Your task to perform on an android device: turn off picture-in-picture Image 0: 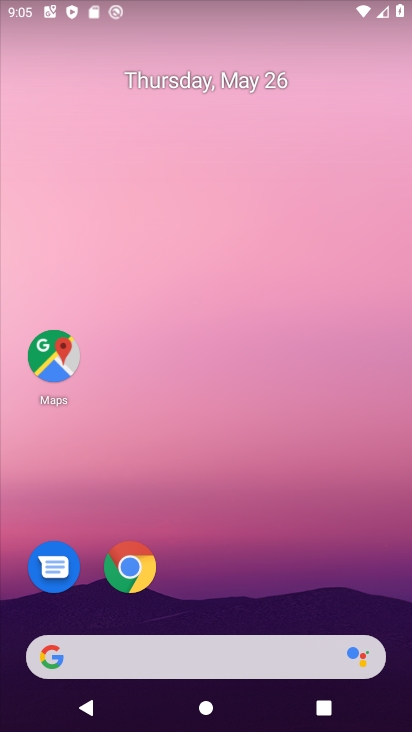
Step 0: press home button
Your task to perform on an android device: turn off picture-in-picture Image 1: 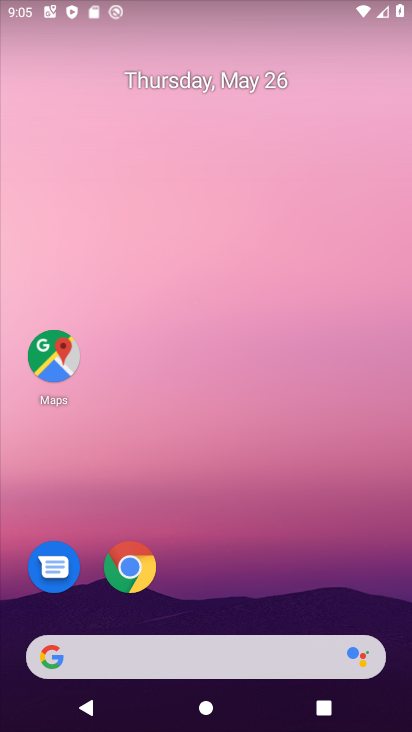
Step 1: drag from (134, 558) to (163, 521)
Your task to perform on an android device: turn off picture-in-picture Image 2: 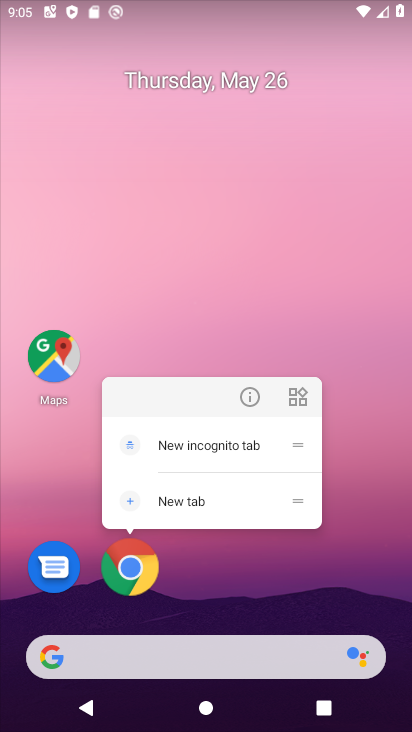
Step 2: click (239, 395)
Your task to perform on an android device: turn off picture-in-picture Image 3: 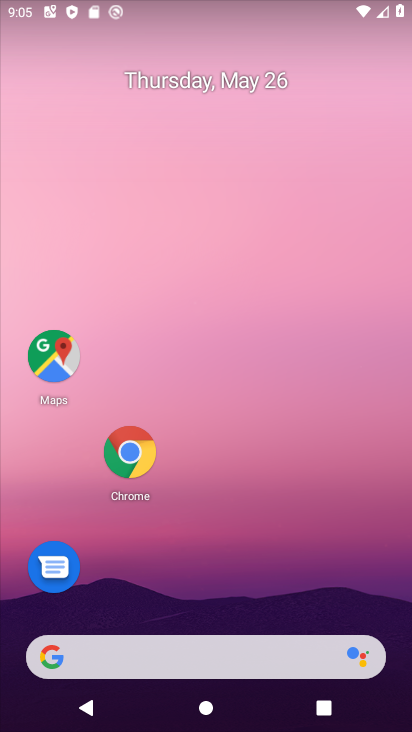
Step 3: click (131, 449)
Your task to perform on an android device: turn off picture-in-picture Image 4: 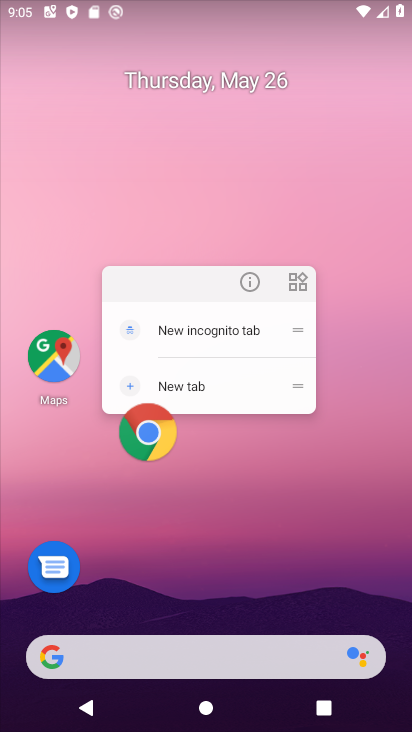
Step 4: click (252, 278)
Your task to perform on an android device: turn off picture-in-picture Image 5: 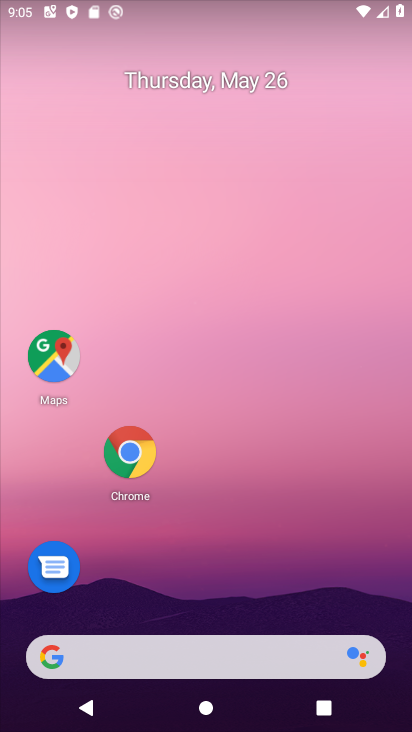
Step 5: click (141, 447)
Your task to perform on an android device: turn off picture-in-picture Image 6: 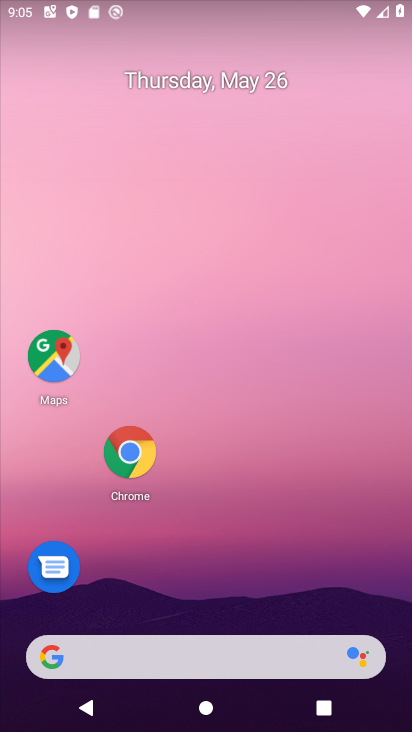
Step 6: click (244, 286)
Your task to perform on an android device: turn off picture-in-picture Image 7: 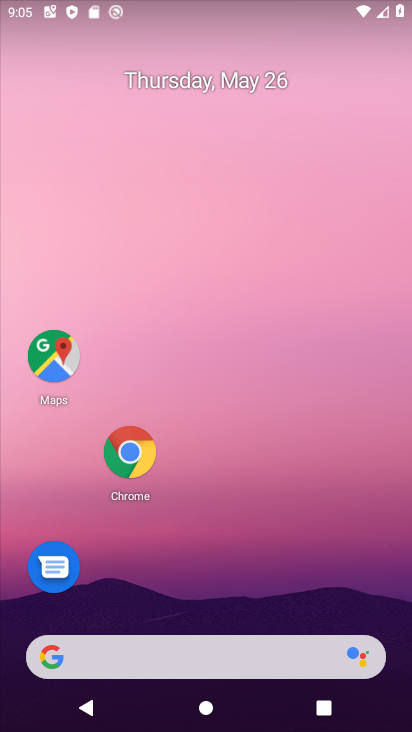
Step 7: drag from (136, 444) to (157, 414)
Your task to perform on an android device: turn off picture-in-picture Image 8: 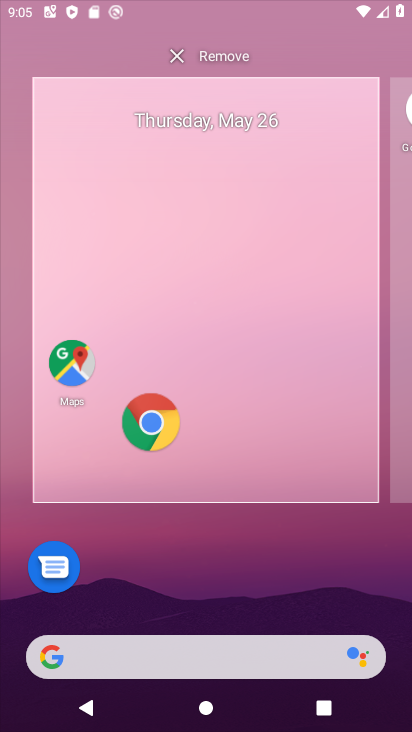
Step 8: click (244, 282)
Your task to perform on an android device: turn off picture-in-picture Image 9: 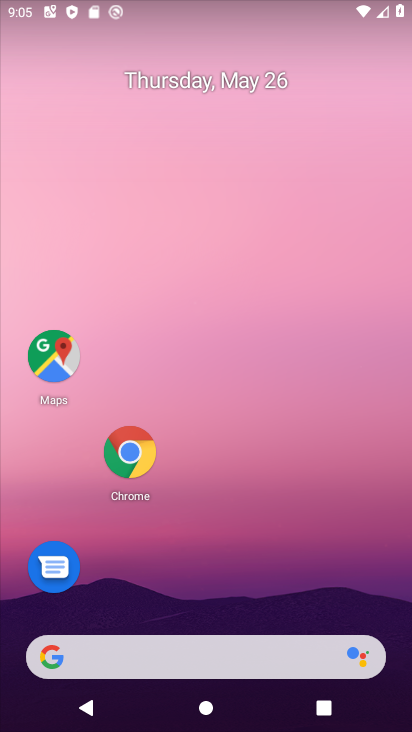
Step 9: click (140, 445)
Your task to perform on an android device: turn off picture-in-picture Image 10: 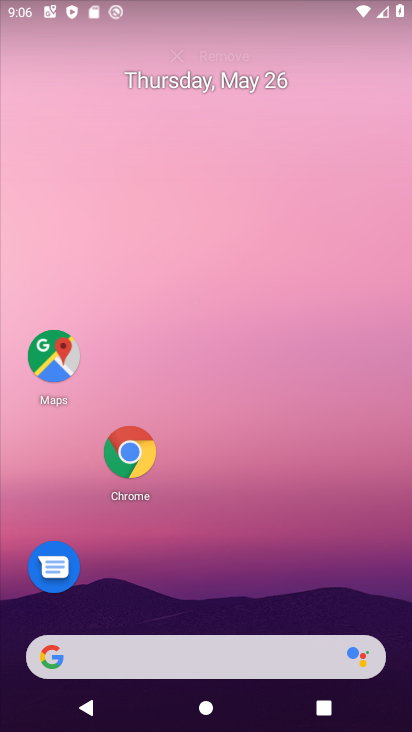
Step 10: click (254, 289)
Your task to perform on an android device: turn off picture-in-picture Image 11: 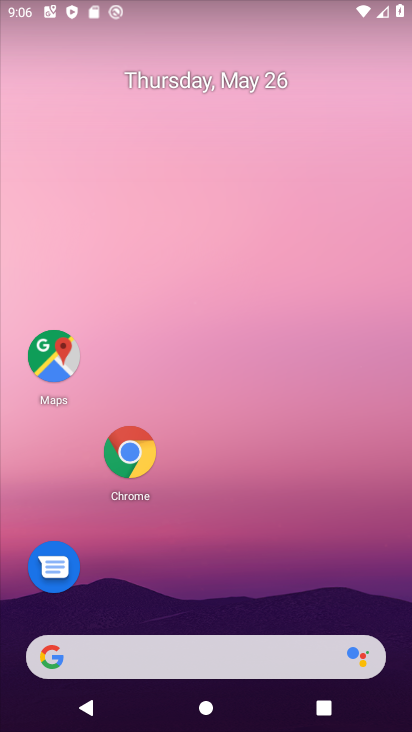
Step 11: click (141, 444)
Your task to perform on an android device: turn off picture-in-picture Image 12: 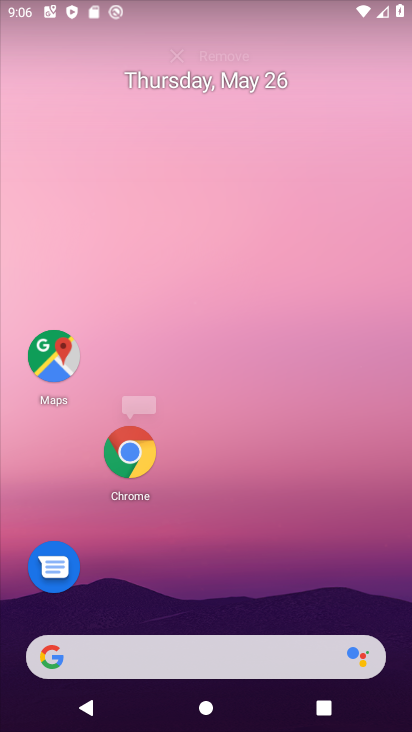
Step 12: click (242, 271)
Your task to perform on an android device: turn off picture-in-picture Image 13: 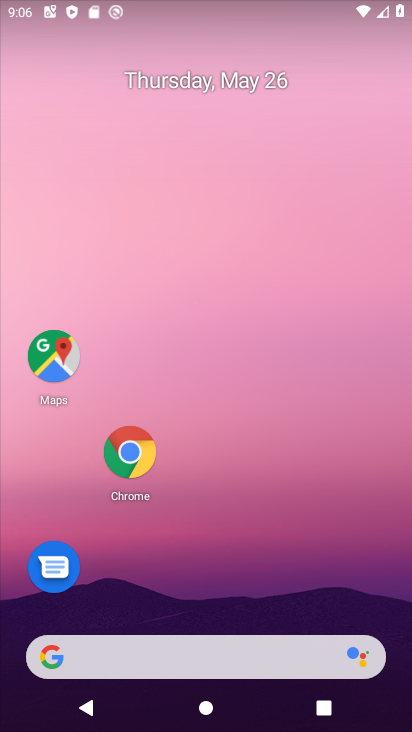
Step 13: drag from (139, 450) to (159, 419)
Your task to perform on an android device: turn off picture-in-picture Image 14: 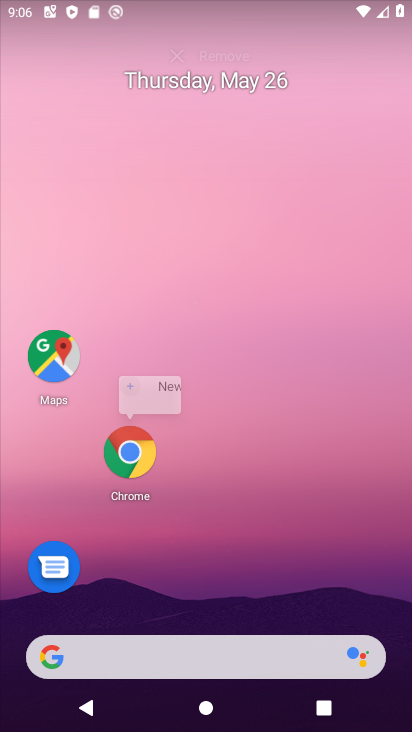
Step 14: click (247, 291)
Your task to perform on an android device: turn off picture-in-picture Image 15: 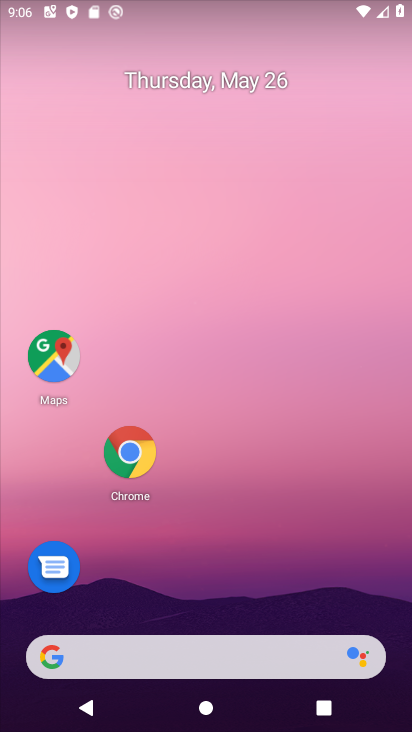
Step 15: drag from (139, 453) to (163, 414)
Your task to perform on an android device: turn off picture-in-picture Image 16: 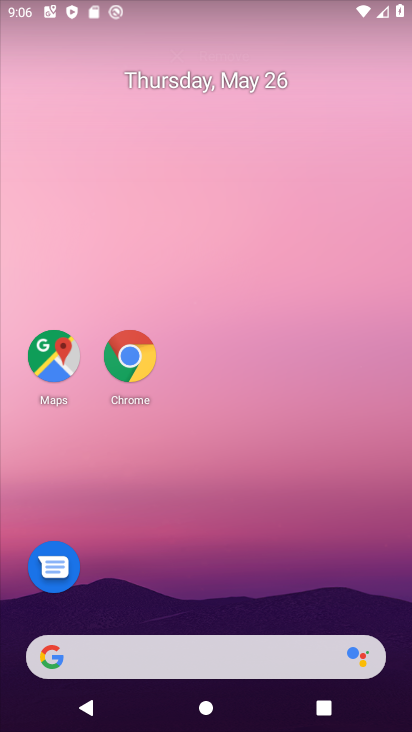
Step 16: click (252, 287)
Your task to perform on an android device: turn off picture-in-picture Image 17: 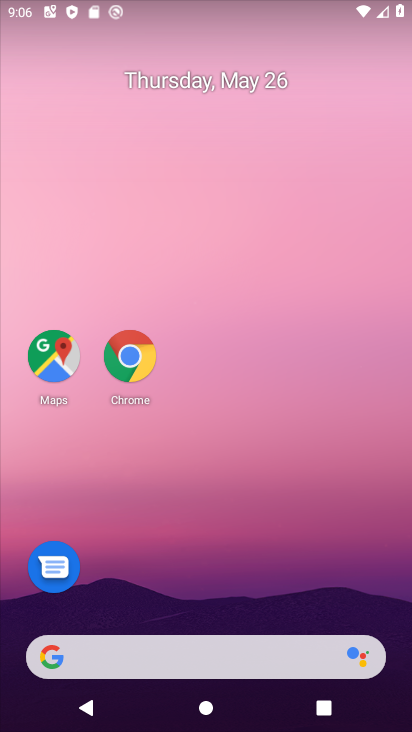
Step 17: drag from (133, 355) to (153, 527)
Your task to perform on an android device: turn off picture-in-picture Image 18: 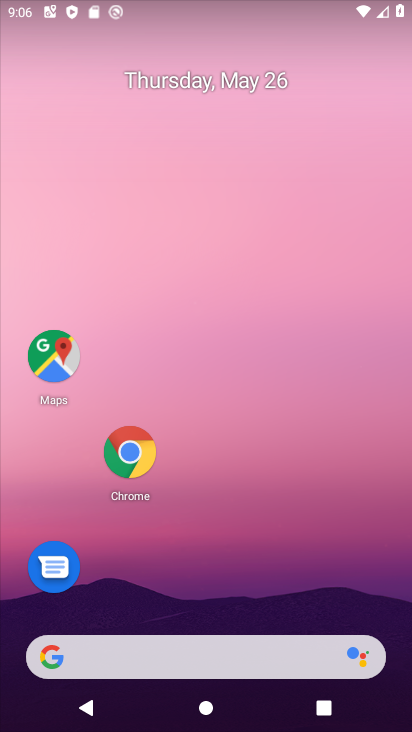
Step 18: click (131, 452)
Your task to perform on an android device: turn off picture-in-picture Image 19: 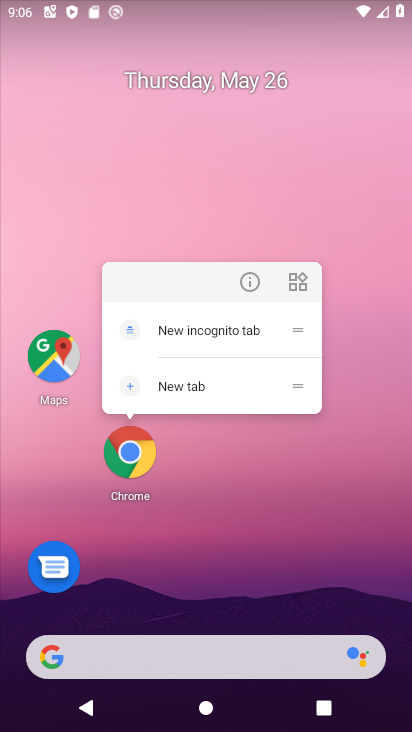
Step 19: click (244, 284)
Your task to perform on an android device: turn off picture-in-picture Image 20: 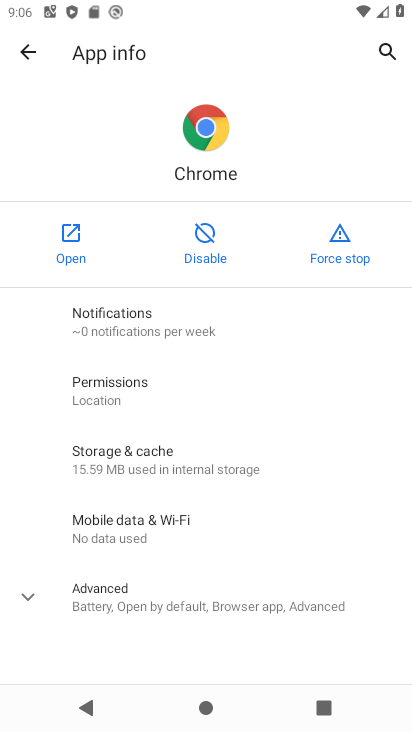
Step 20: drag from (183, 586) to (285, 268)
Your task to perform on an android device: turn off picture-in-picture Image 21: 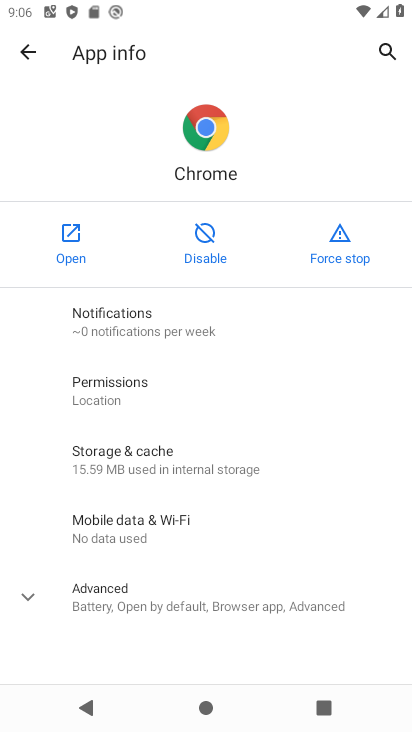
Step 21: click (117, 595)
Your task to perform on an android device: turn off picture-in-picture Image 22: 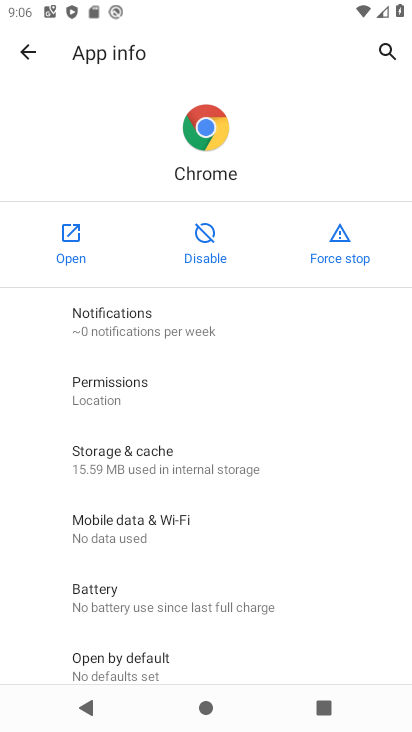
Step 22: drag from (196, 648) to (310, 224)
Your task to perform on an android device: turn off picture-in-picture Image 23: 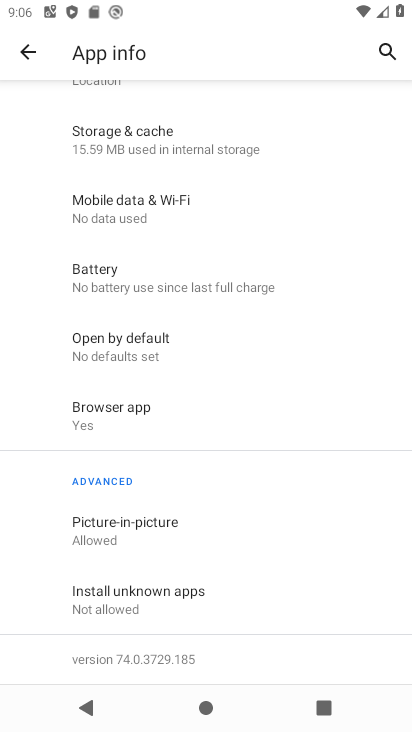
Step 23: click (139, 527)
Your task to perform on an android device: turn off picture-in-picture Image 24: 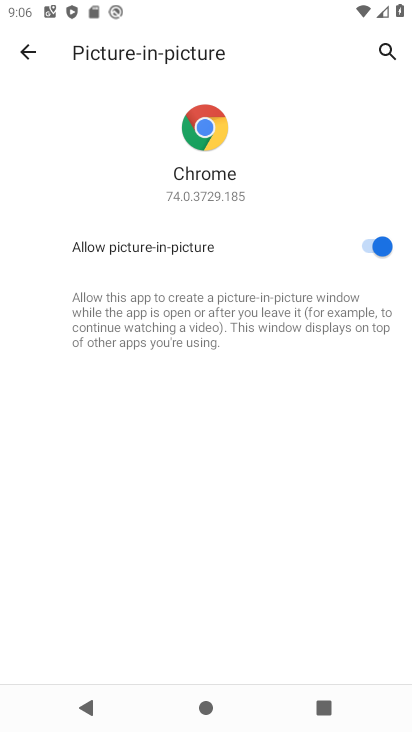
Step 24: click (370, 240)
Your task to perform on an android device: turn off picture-in-picture Image 25: 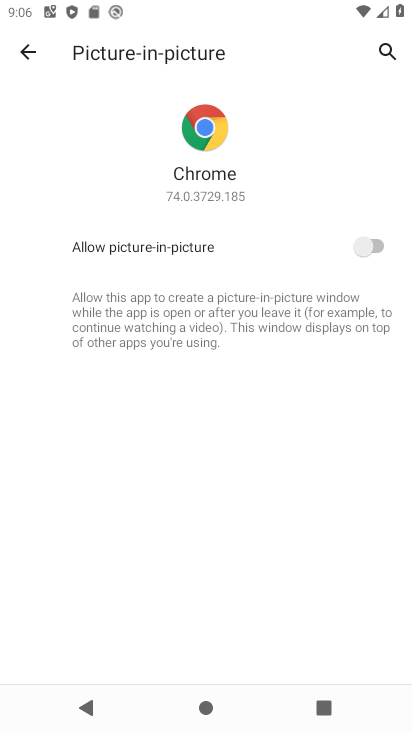
Step 25: task complete